Your task to perform on an android device: see tabs open on other devices in the chrome app Image 0: 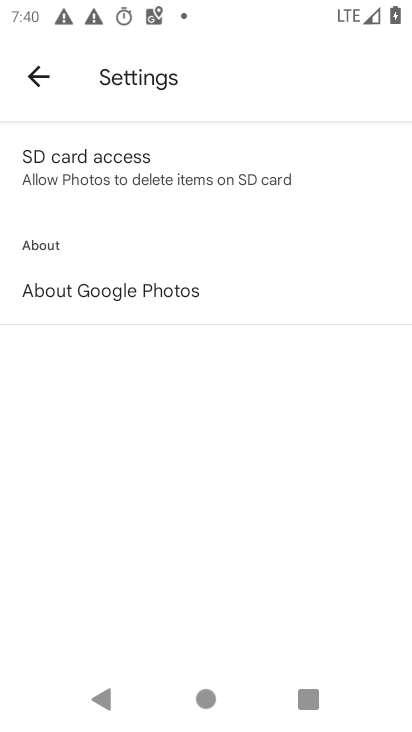
Step 0: press home button
Your task to perform on an android device: see tabs open on other devices in the chrome app Image 1: 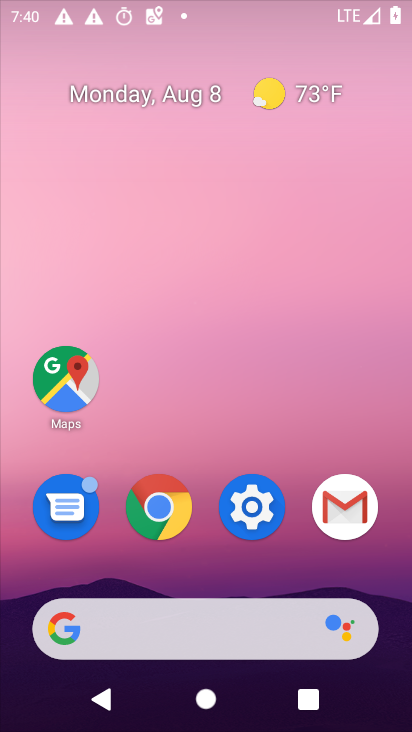
Step 1: drag from (217, 665) to (193, 208)
Your task to perform on an android device: see tabs open on other devices in the chrome app Image 2: 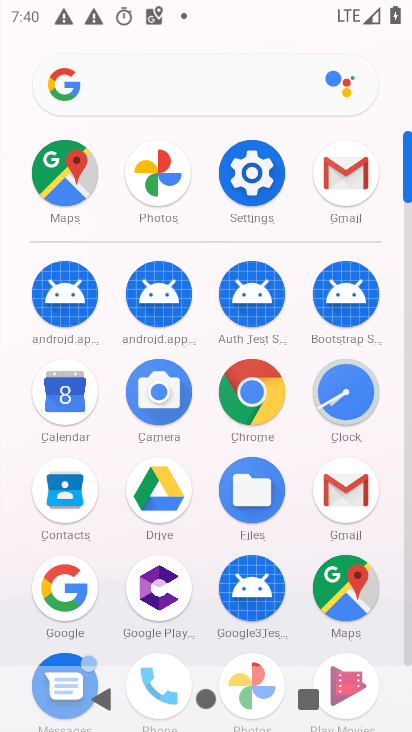
Step 2: click (241, 384)
Your task to perform on an android device: see tabs open on other devices in the chrome app Image 3: 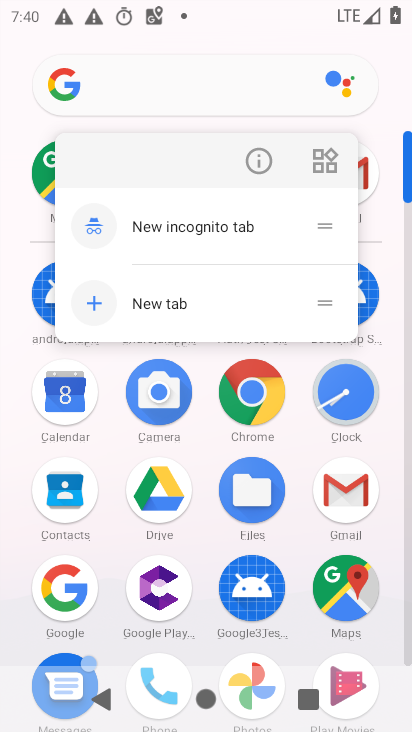
Step 3: click (248, 383)
Your task to perform on an android device: see tabs open on other devices in the chrome app Image 4: 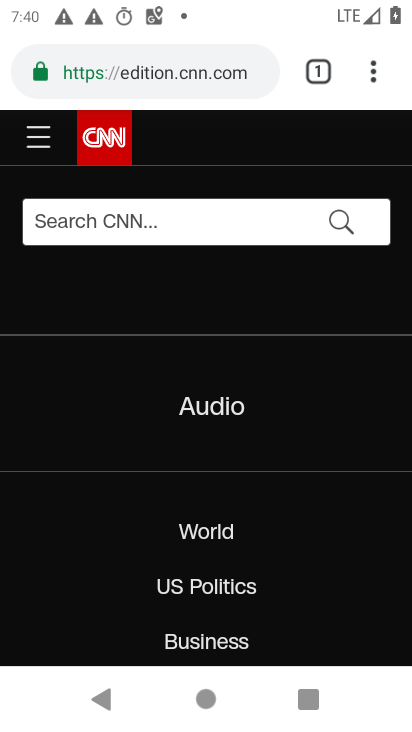
Step 4: click (373, 68)
Your task to perform on an android device: see tabs open on other devices in the chrome app Image 5: 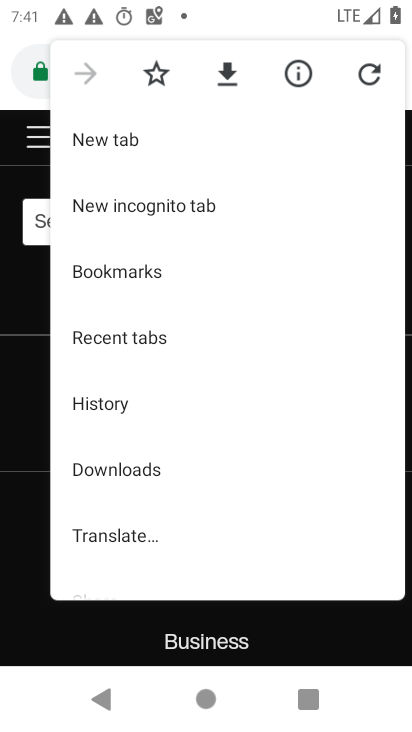
Step 5: click (123, 144)
Your task to perform on an android device: see tabs open on other devices in the chrome app Image 6: 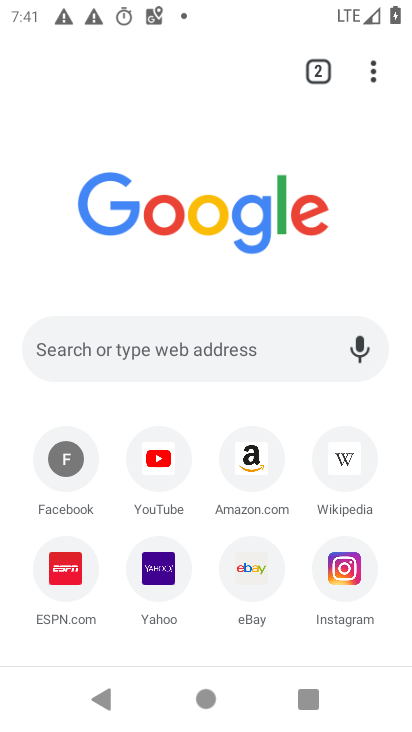
Step 6: click (311, 73)
Your task to perform on an android device: see tabs open on other devices in the chrome app Image 7: 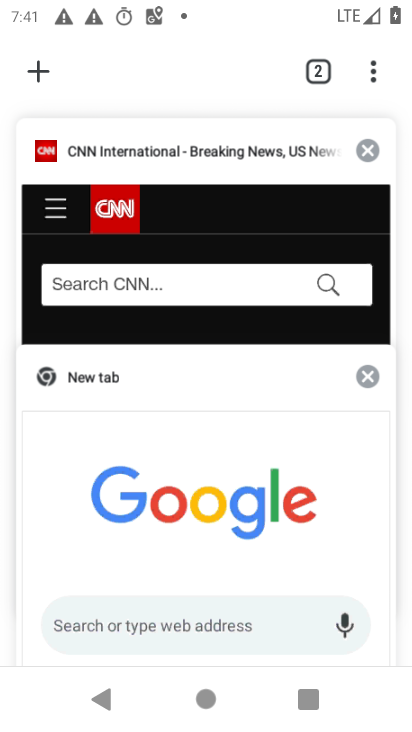
Step 7: click (42, 72)
Your task to perform on an android device: see tabs open on other devices in the chrome app Image 8: 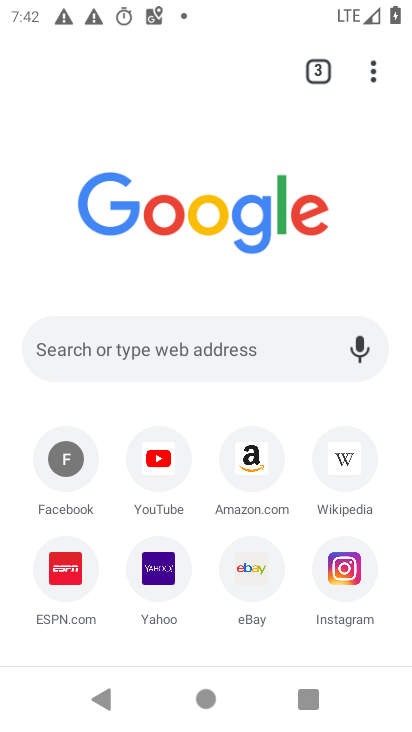
Step 8: task complete